Your task to perform on an android device: Search for Italian restaurants on Maps Image 0: 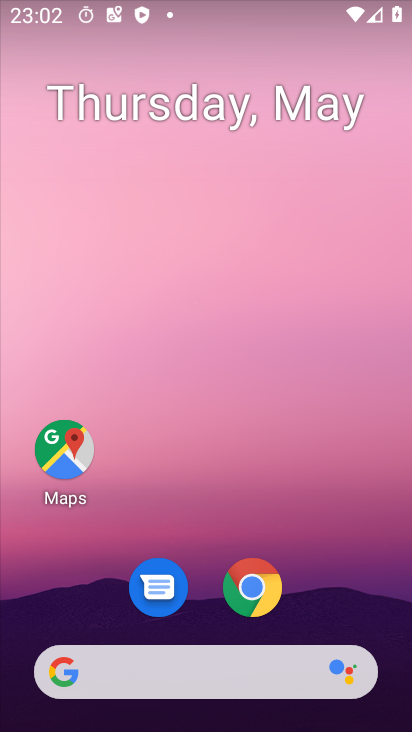
Step 0: click (81, 465)
Your task to perform on an android device: Search for Italian restaurants on Maps Image 1: 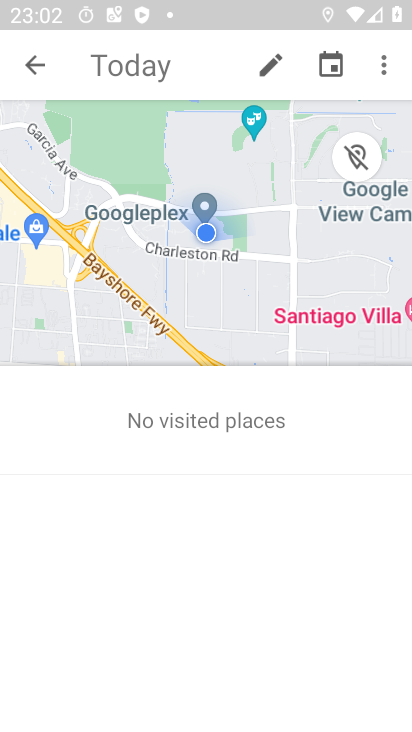
Step 1: click (41, 68)
Your task to perform on an android device: Search for Italian restaurants on Maps Image 2: 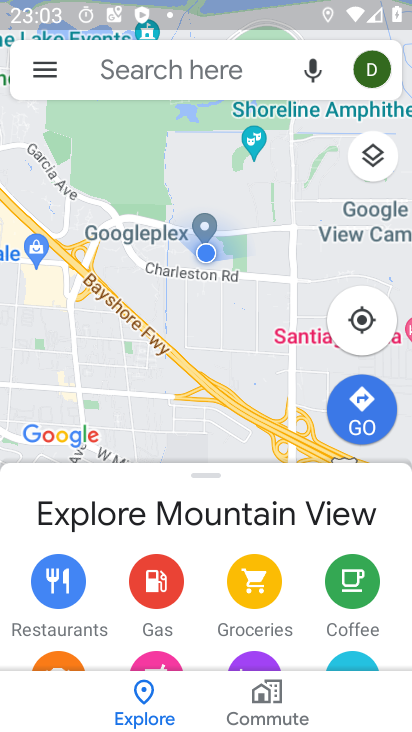
Step 2: click (132, 81)
Your task to perform on an android device: Search for Italian restaurants on Maps Image 3: 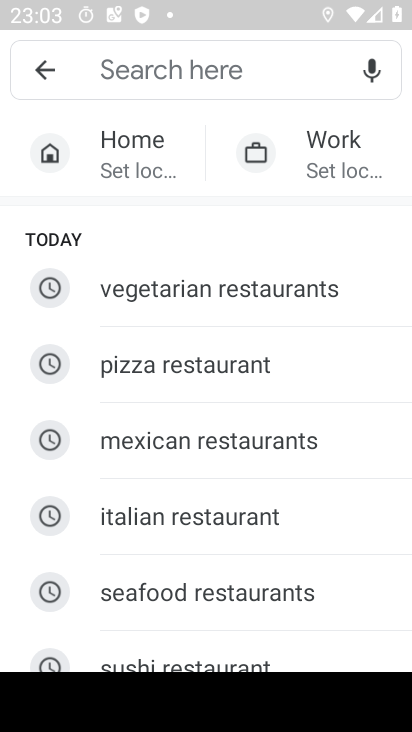
Step 3: type "italian restaurants"
Your task to perform on an android device: Search for Italian restaurants on Maps Image 4: 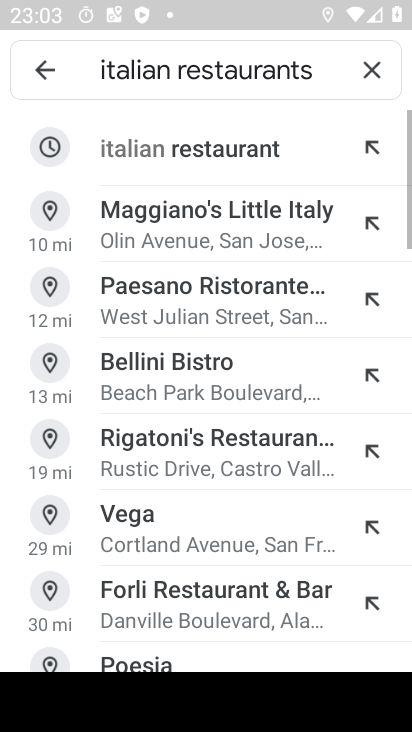
Step 4: click (151, 162)
Your task to perform on an android device: Search for Italian restaurants on Maps Image 5: 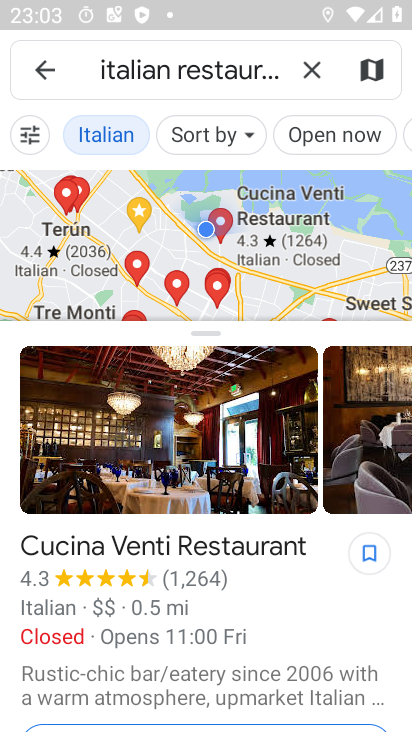
Step 5: task complete